Your task to perform on an android device: toggle wifi Image 0: 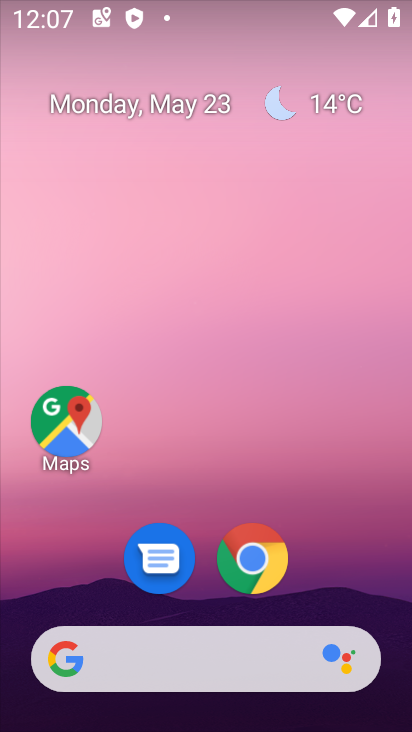
Step 0: drag from (359, 608) to (381, 42)
Your task to perform on an android device: toggle wifi Image 1: 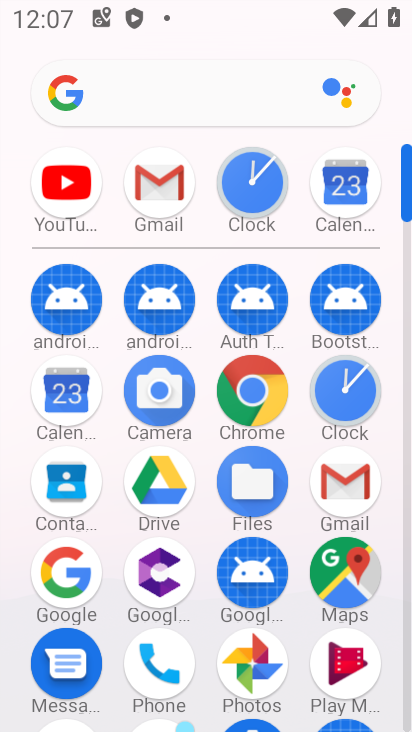
Step 1: click (406, 559)
Your task to perform on an android device: toggle wifi Image 2: 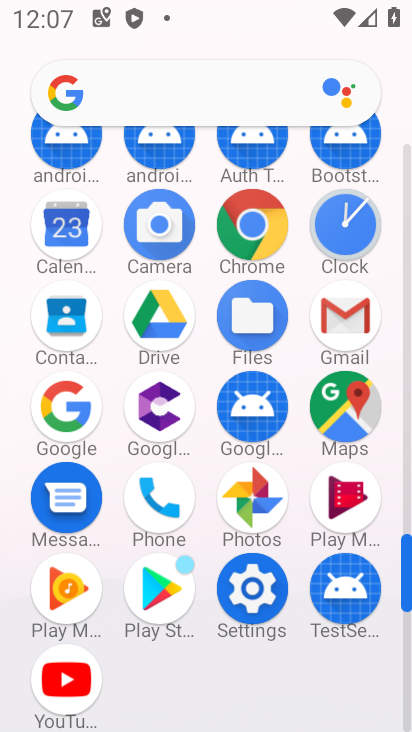
Step 2: click (254, 587)
Your task to perform on an android device: toggle wifi Image 3: 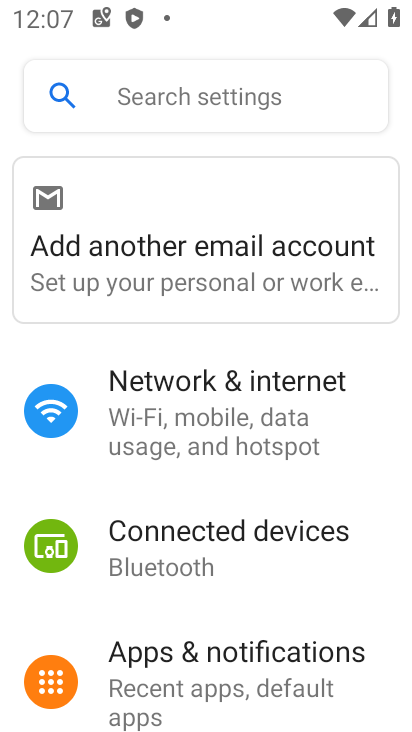
Step 3: click (212, 407)
Your task to perform on an android device: toggle wifi Image 4: 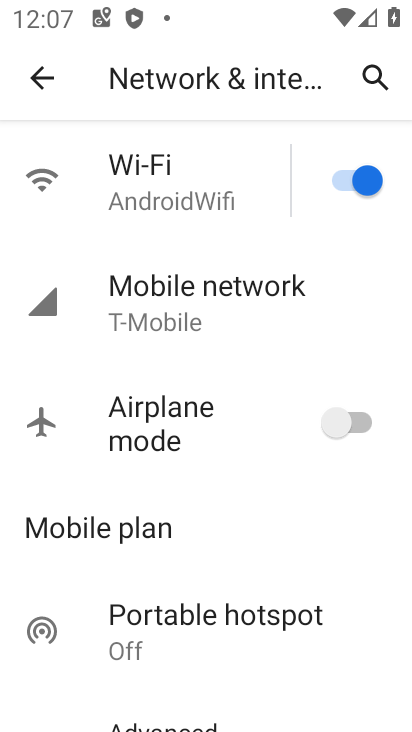
Step 4: click (357, 189)
Your task to perform on an android device: toggle wifi Image 5: 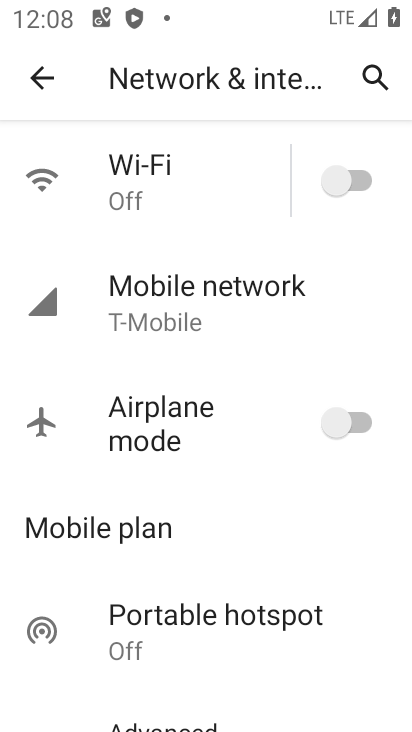
Step 5: task complete